Your task to perform on an android device: Open maps Image 0: 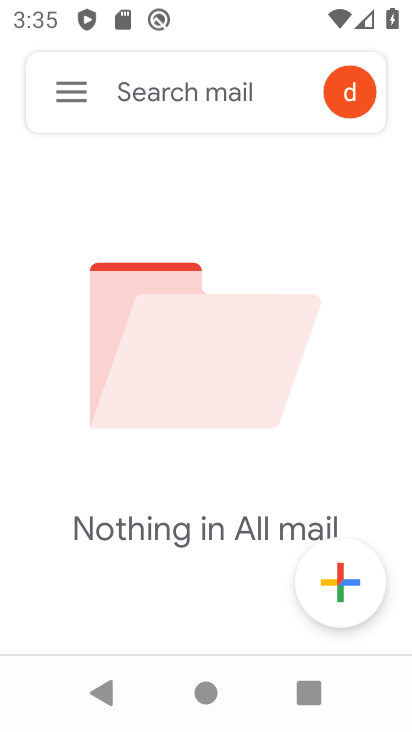
Step 0: press home button
Your task to perform on an android device: Open maps Image 1: 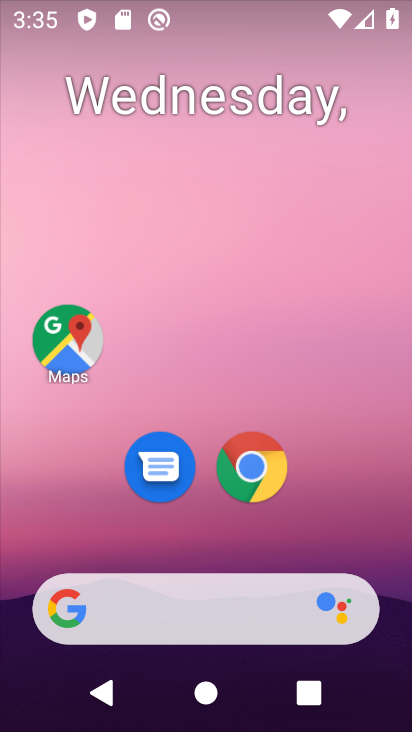
Step 1: click (78, 343)
Your task to perform on an android device: Open maps Image 2: 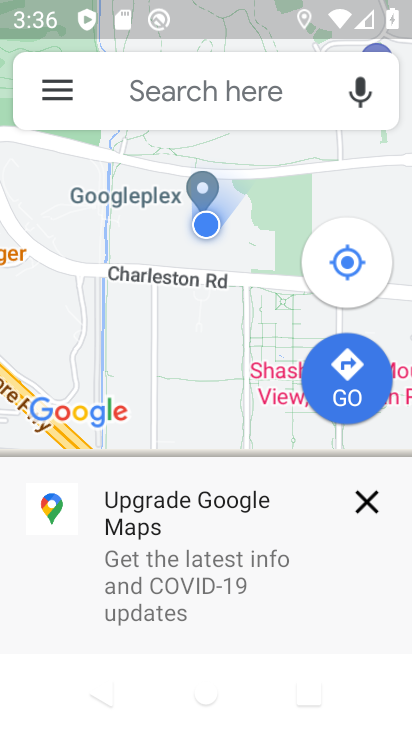
Step 2: task complete